Your task to perform on an android device: When is my next appointment? Image 0: 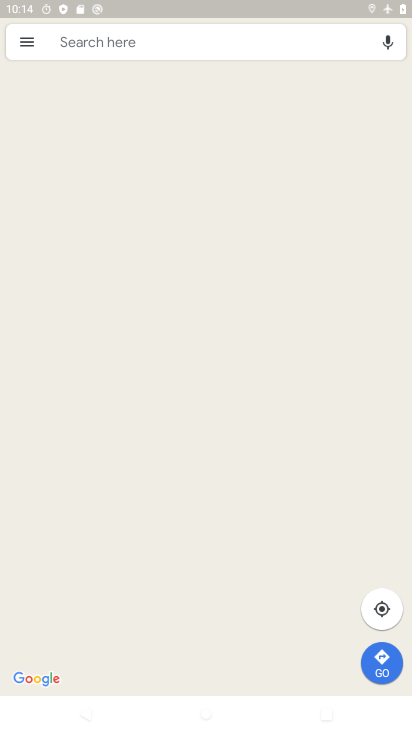
Step 0: press back button
Your task to perform on an android device: When is my next appointment? Image 1: 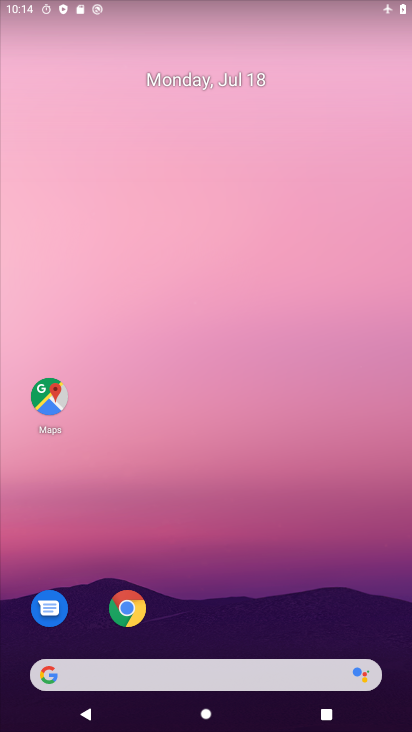
Step 1: drag from (266, 680) to (214, 148)
Your task to perform on an android device: When is my next appointment? Image 2: 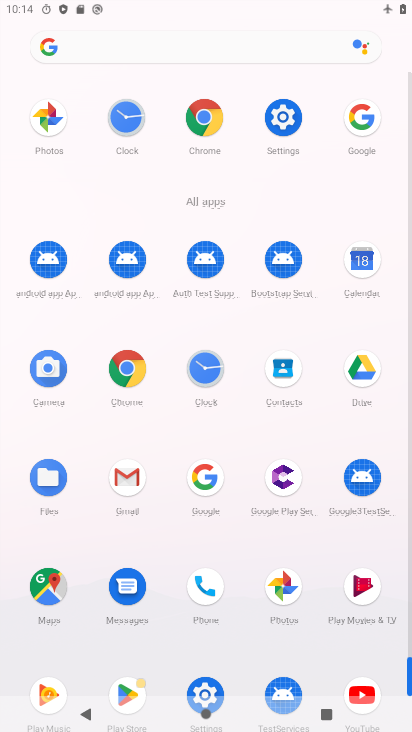
Step 2: click (366, 249)
Your task to perform on an android device: When is my next appointment? Image 3: 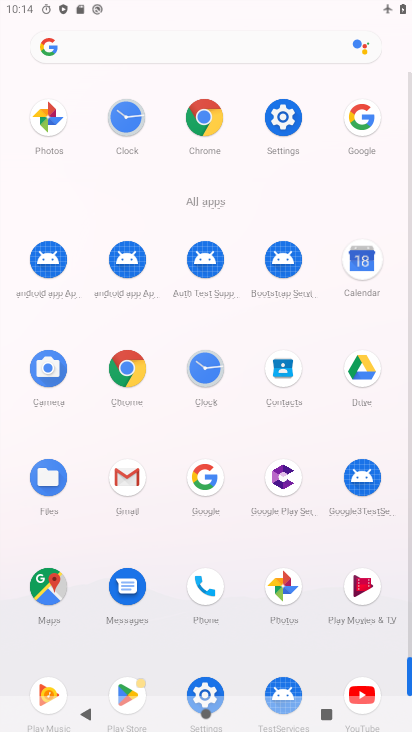
Step 3: click (370, 256)
Your task to perform on an android device: When is my next appointment? Image 4: 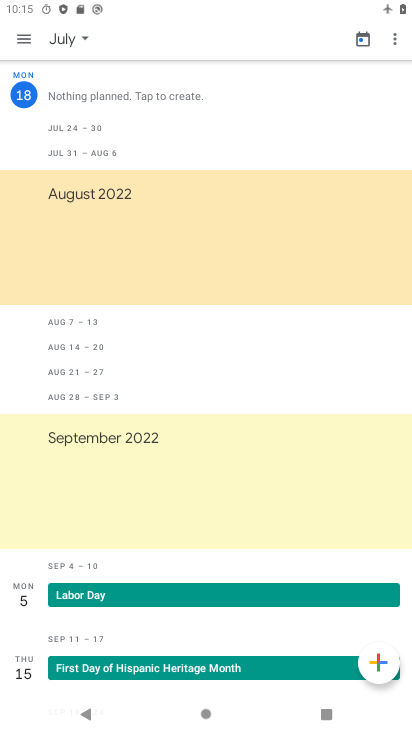
Step 4: click (84, 33)
Your task to perform on an android device: When is my next appointment? Image 5: 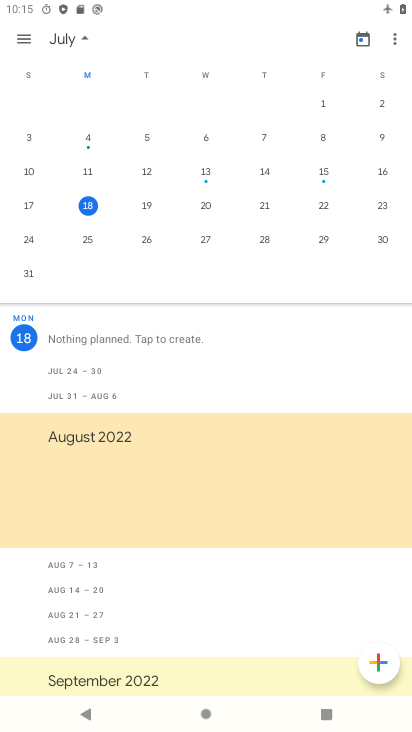
Step 5: task complete